Your task to perform on an android device: toggle sleep mode Image 0: 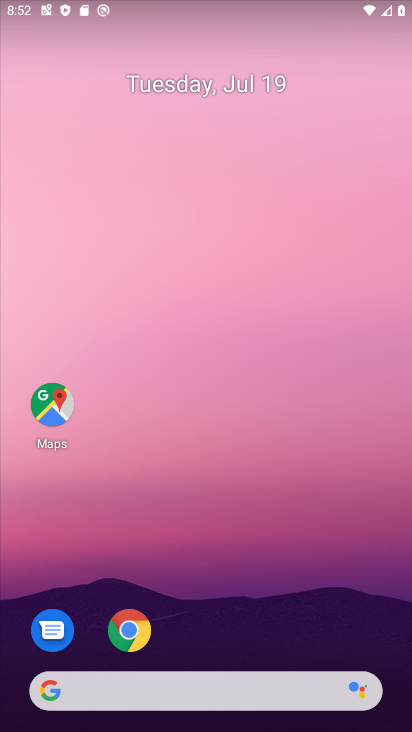
Step 0: drag from (187, 620) to (182, 47)
Your task to perform on an android device: toggle sleep mode Image 1: 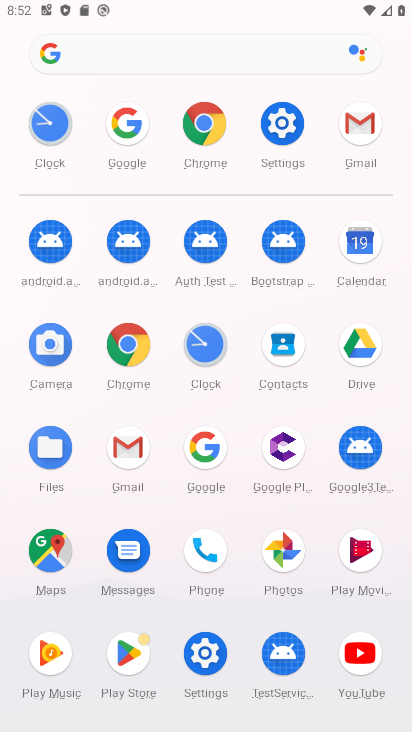
Step 1: click (278, 124)
Your task to perform on an android device: toggle sleep mode Image 2: 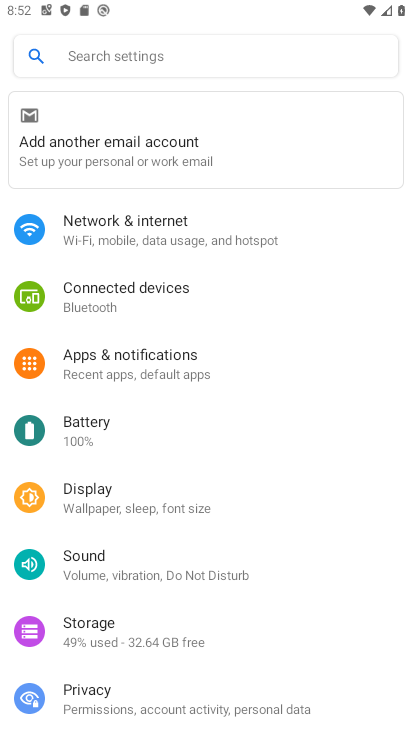
Step 2: click (157, 498)
Your task to perform on an android device: toggle sleep mode Image 3: 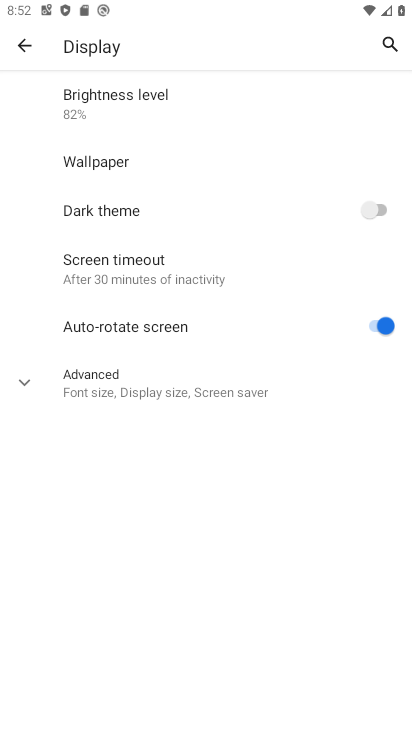
Step 3: click (97, 251)
Your task to perform on an android device: toggle sleep mode Image 4: 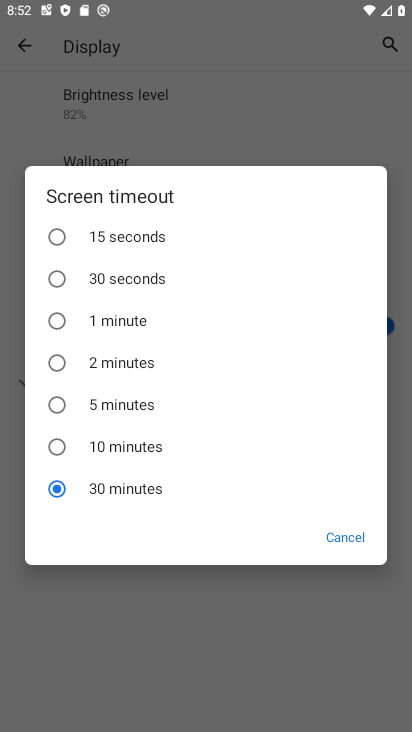
Step 4: click (56, 446)
Your task to perform on an android device: toggle sleep mode Image 5: 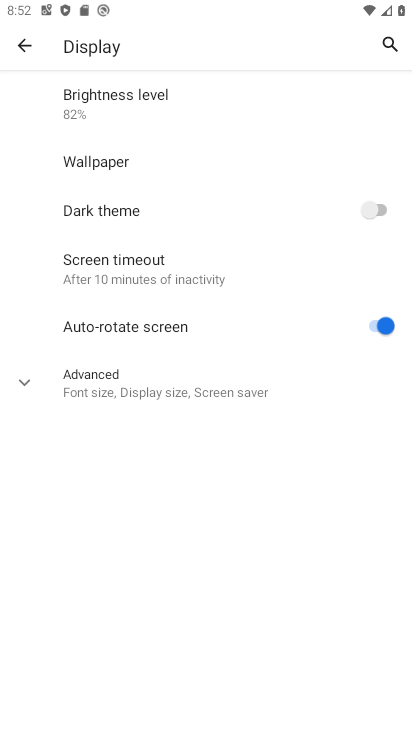
Step 5: task complete